Your task to perform on an android device: toggle pop-ups in chrome Image 0: 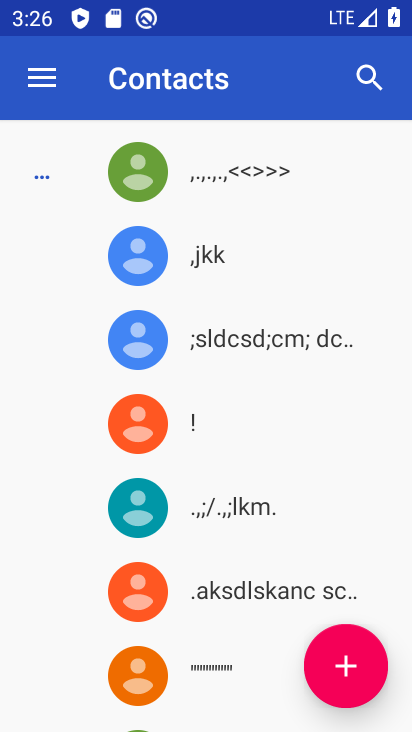
Step 0: press home button
Your task to perform on an android device: toggle pop-ups in chrome Image 1: 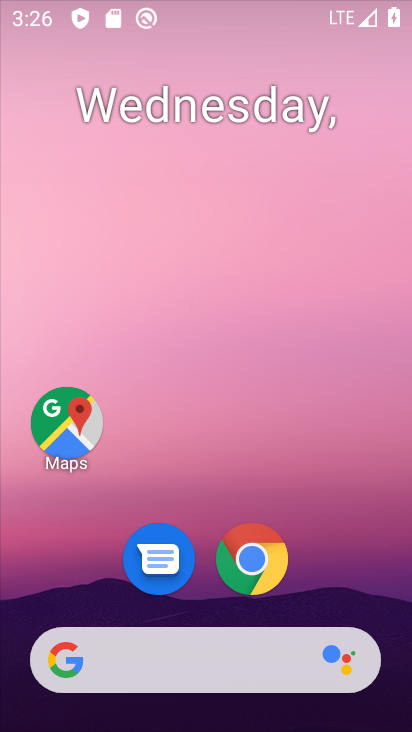
Step 1: drag from (260, 162) to (250, 60)
Your task to perform on an android device: toggle pop-ups in chrome Image 2: 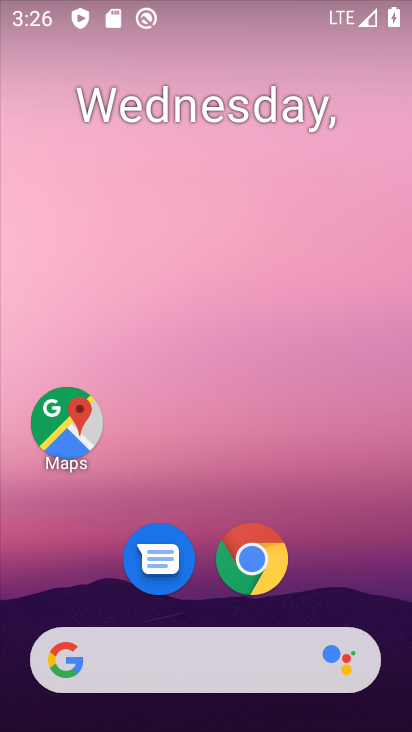
Step 2: drag from (341, 440) to (300, 100)
Your task to perform on an android device: toggle pop-ups in chrome Image 3: 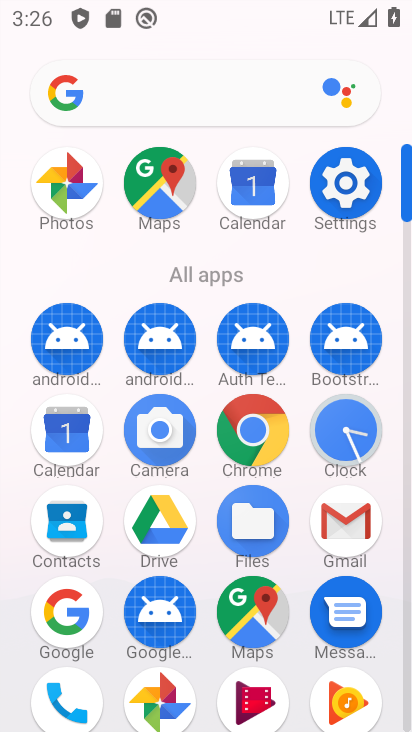
Step 3: click (244, 436)
Your task to perform on an android device: toggle pop-ups in chrome Image 4: 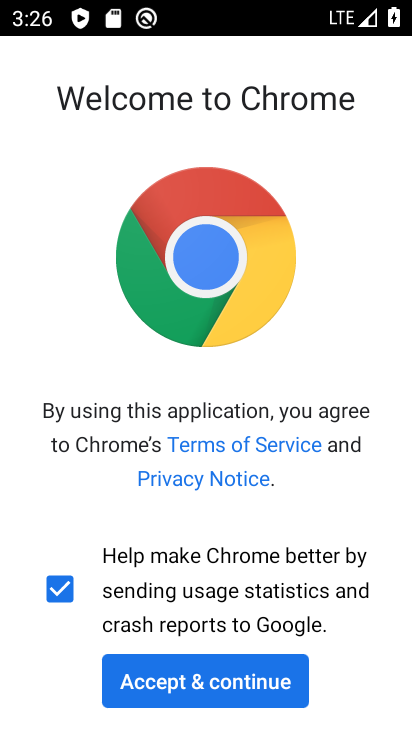
Step 4: click (215, 683)
Your task to perform on an android device: toggle pop-ups in chrome Image 5: 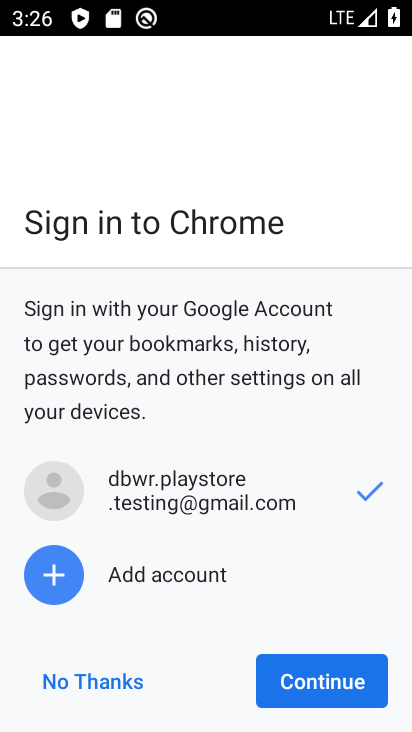
Step 5: click (343, 649)
Your task to perform on an android device: toggle pop-ups in chrome Image 6: 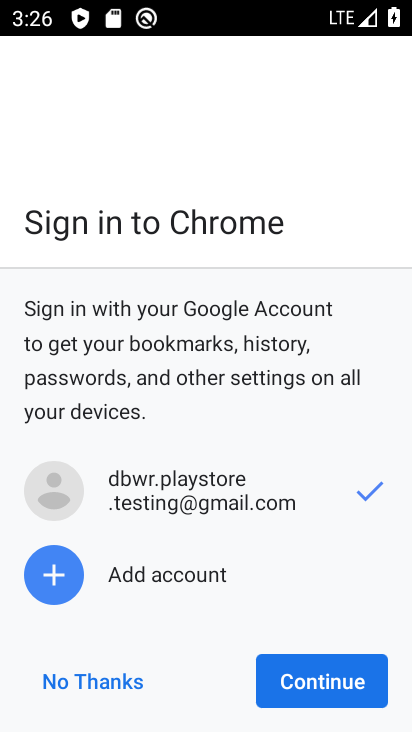
Step 6: click (328, 663)
Your task to perform on an android device: toggle pop-ups in chrome Image 7: 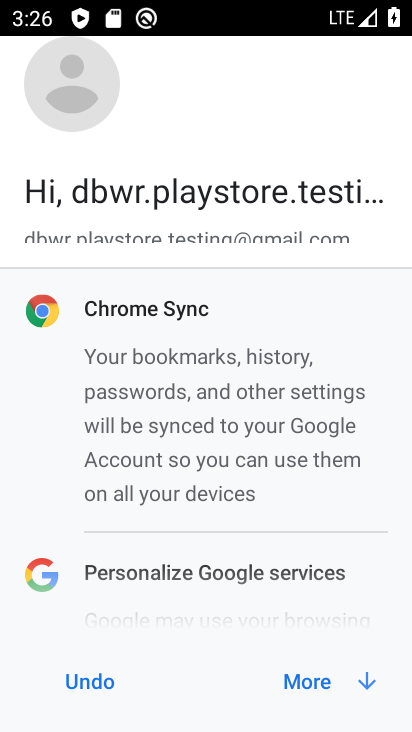
Step 7: click (328, 676)
Your task to perform on an android device: toggle pop-ups in chrome Image 8: 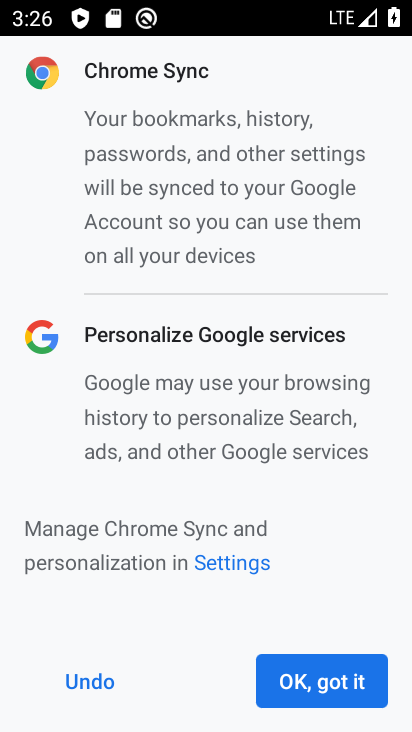
Step 8: click (328, 667)
Your task to perform on an android device: toggle pop-ups in chrome Image 9: 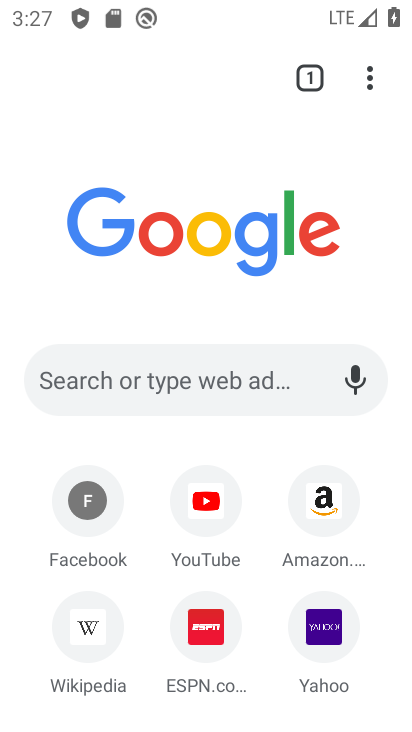
Step 9: click (368, 60)
Your task to perform on an android device: toggle pop-ups in chrome Image 10: 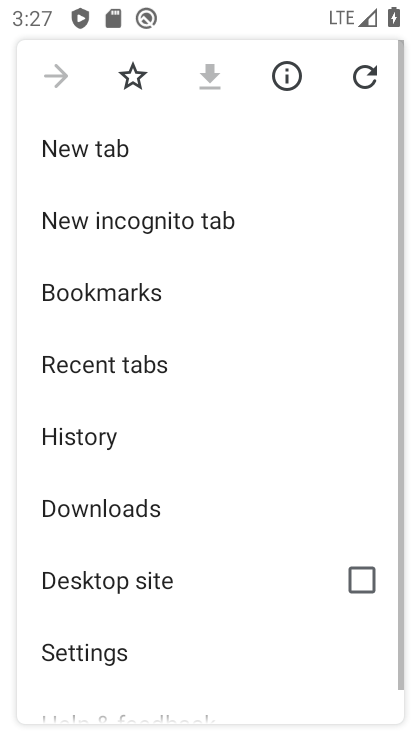
Step 10: drag from (208, 547) to (200, 98)
Your task to perform on an android device: toggle pop-ups in chrome Image 11: 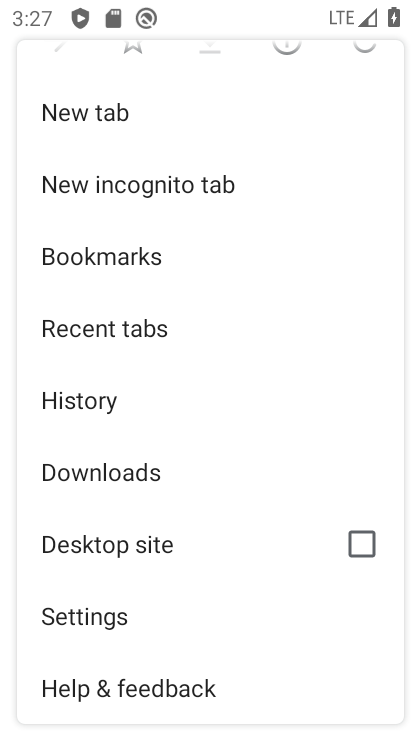
Step 11: click (120, 617)
Your task to perform on an android device: toggle pop-ups in chrome Image 12: 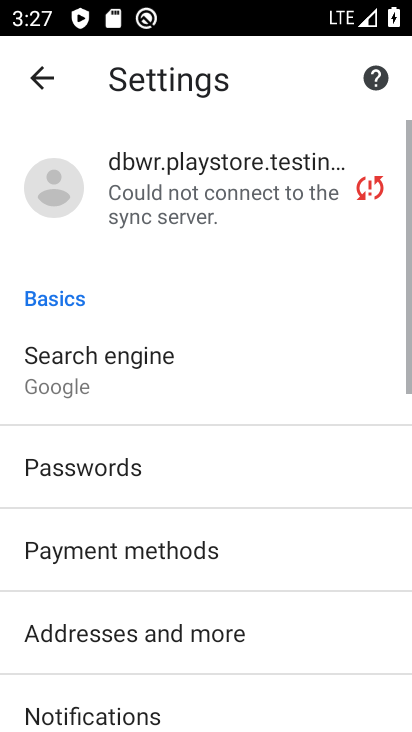
Step 12: drag from (209, 669) to (246, 210)
Your task to perform on an android device: toggle pop-ups in chrome Image 13: 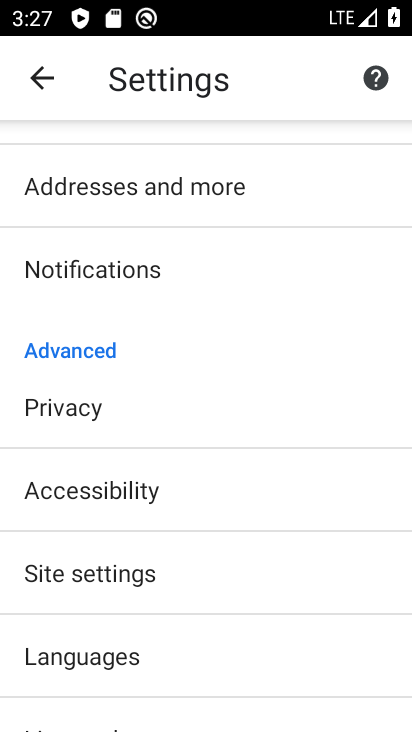
Step 13: drag from (185, 567) to (216, 313)
Your task to perform on an android device: toggle pop-ups in chrome Image 14: 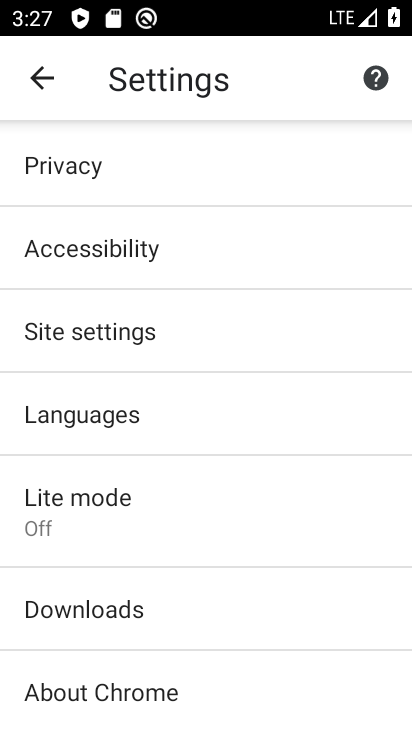
Step 14: click (136, 336)
Your task to perform on an android device: toggle pop-ups in chrome Image 15: 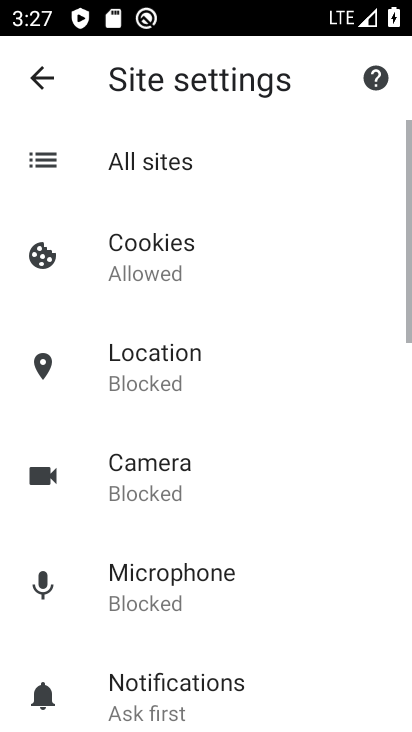
Step 15: drag from (281, 596) to (288, 147)
Your task to perform on an android device: toggle pop-ups in chrome Image 16: 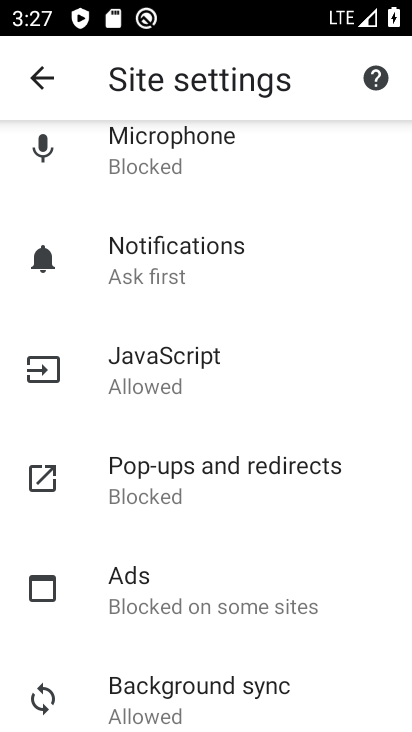
Step 16: drag from (252, 415) to (271, 110)
Your task to perform on an android device: toggle pop-ups in chrome Image 17: 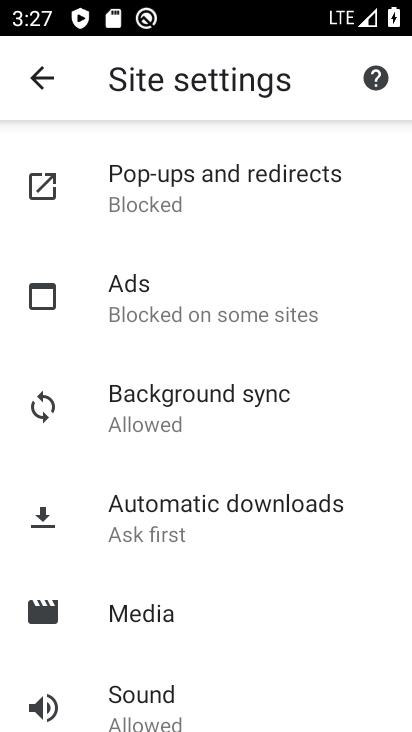
Step 17: drag from (241, 436) to (263, 703)
Your task to perform on an android device: toggle pop-ups in chrome Image 18: 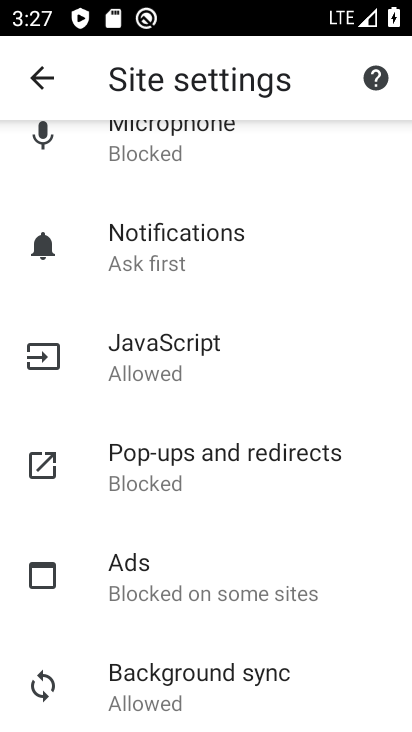
Step 18: click (183, 467)
Your task to perform on an android device: toggle pop-ups in chrome Image 19: 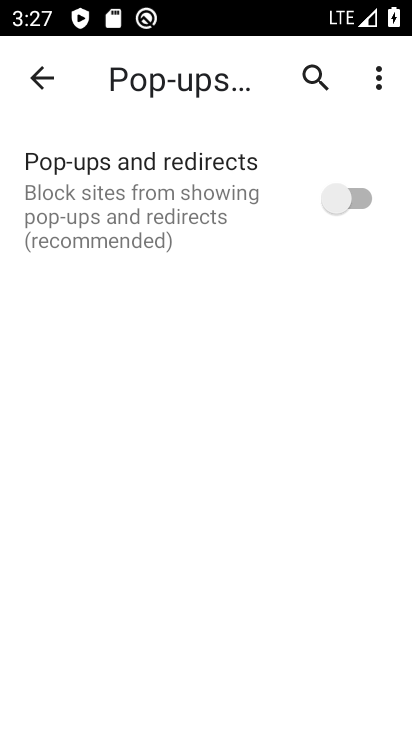
Step 19: click (345, 189)
Your task to perform on an android device: toggle pop-ups in chrome Image 20: 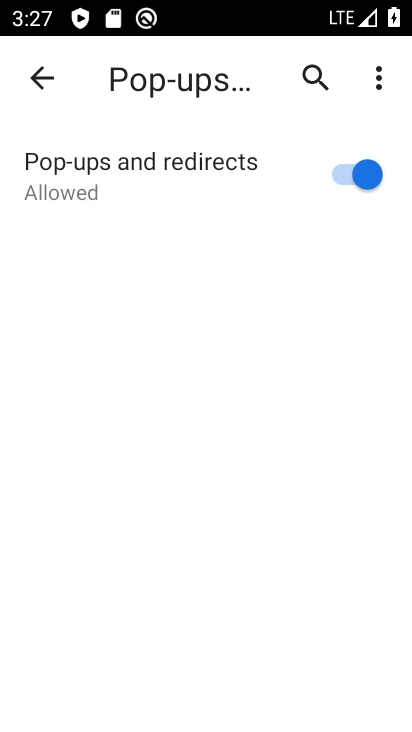
Step 20: task complete